Your task to perform on an android device: Go to display settings Image 0: 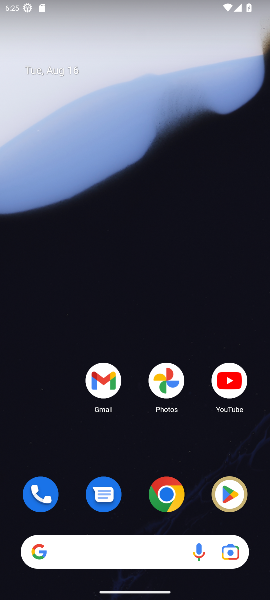
Step 0: press home button
Your task to perform on an android device: Go to display settings Image 1: 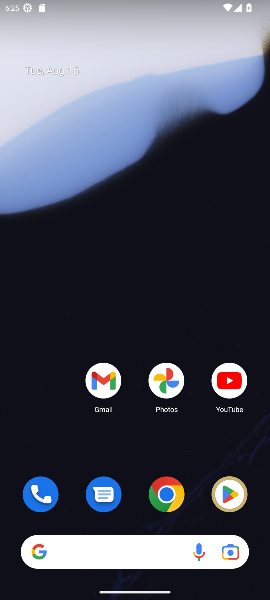
Step 1: drag from (52, 440) to (96, 127)
Your task to perform on an android device: Go to display settings Image 2: 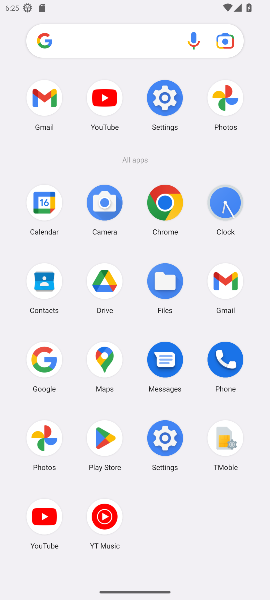
Step 2: click (168, 442)
Your task to perform on an android device: Go to display settings Image 3: 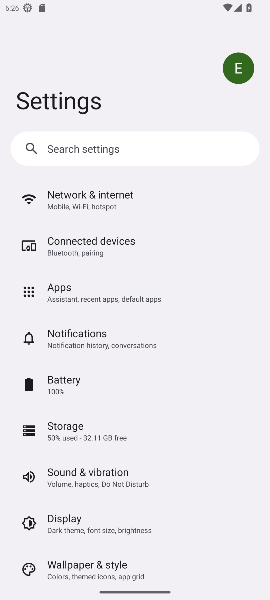
Step 3: click (69, 525)
Your task to perform on an android device: Go to display settings Image 4: 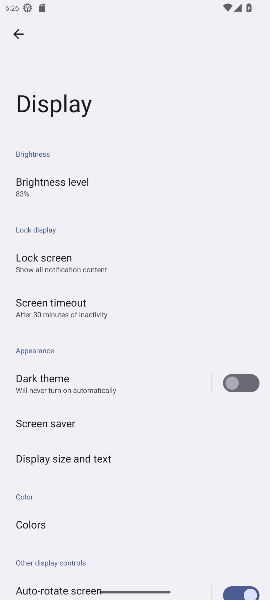
Step 4: task complete